Your task to perform on an android device: Check the weather Image 0: 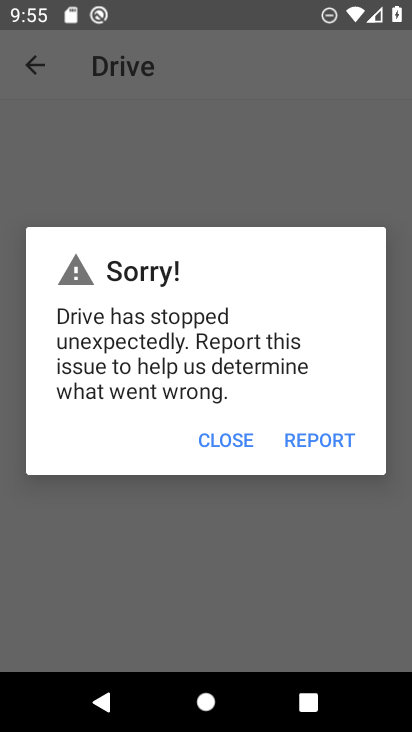
Step 0: press back button
Your task to perform on an android device: Check the weather Image 1: 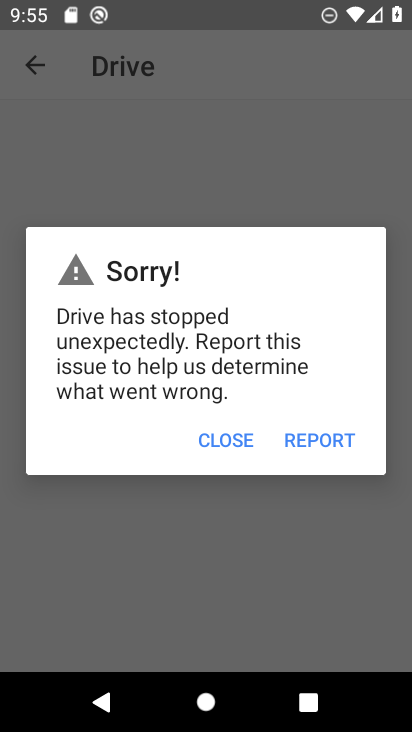
Step 1: press back button
Your task to perform on an android device: Check the weather Image 2: 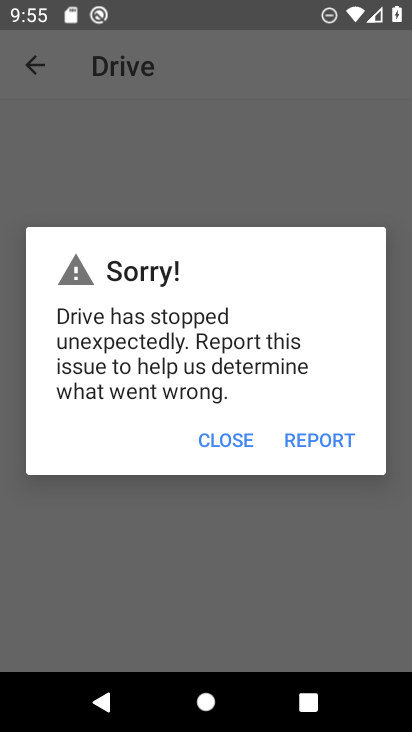
Step 2: press home button
Your task to perform on an android device: Check the weather Image 3: 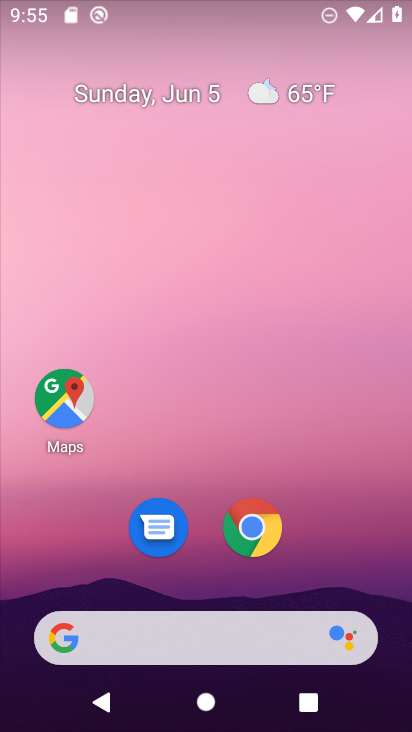
Step 3: click (260, 96)
Your task to perform on an android device: Check the weather Image 4: 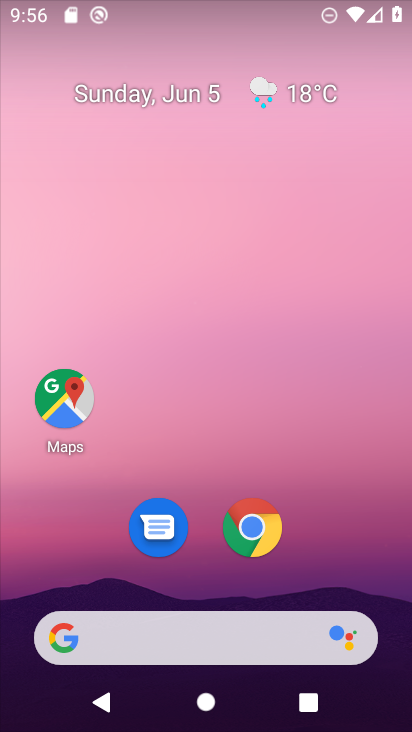
Step 4: click (265, 94)
Your task to perform on an android device: Check the weather Image 5: 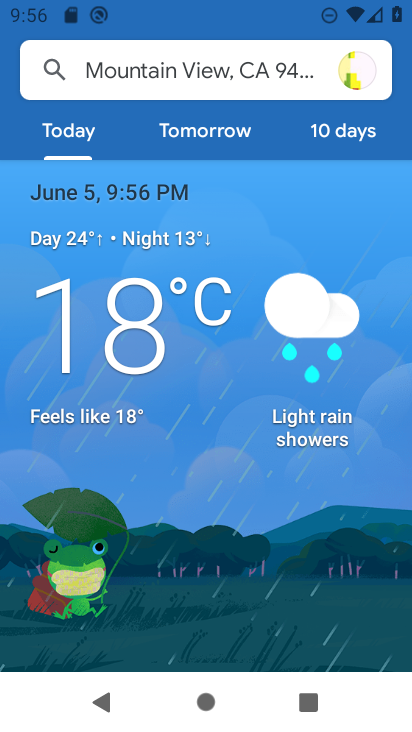
Step 5: task complete